Your task to perform on an android device: turn off location Image 0: 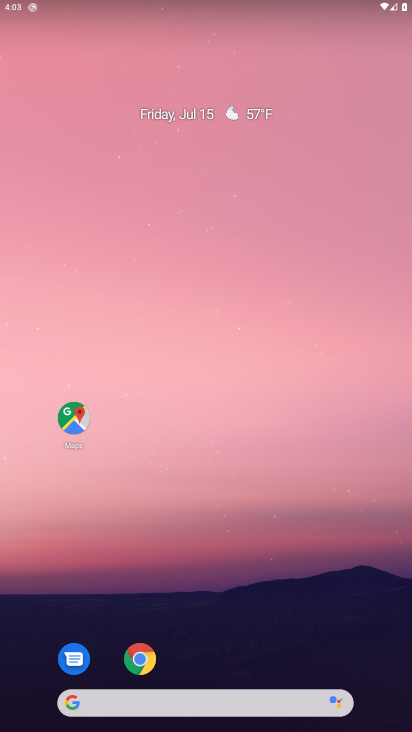
Step 0: drag from (60, 616) to (284, 3)
Your task to perform on an android device: turn off location Image 1: 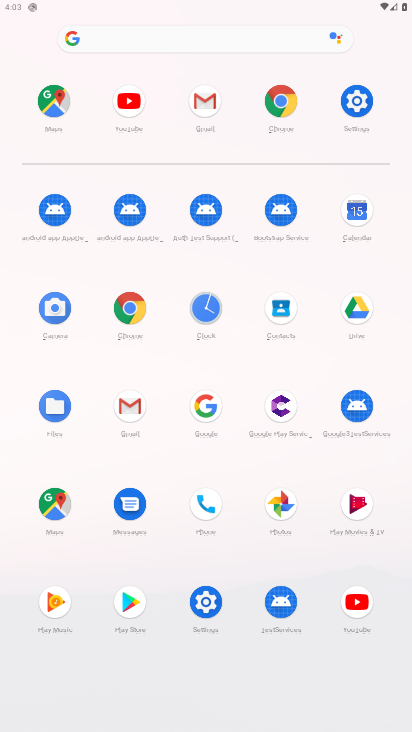
Step 1: click (192, 603)
Your task to perform on an android device: turn off location Image 2: 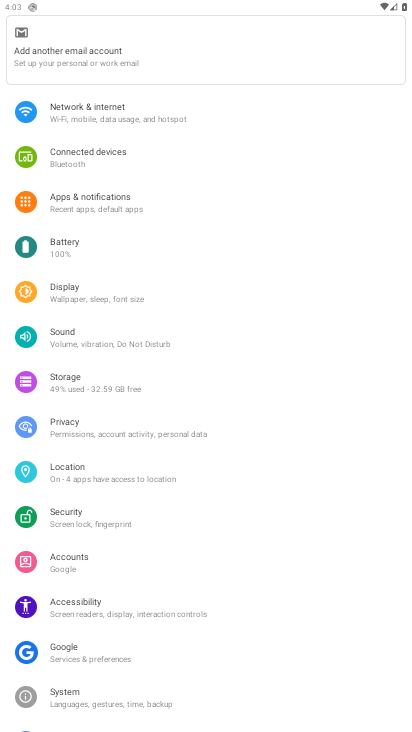
Step 2: click (84, 474)
Your task to perform on an android device: turn off location Image 3: 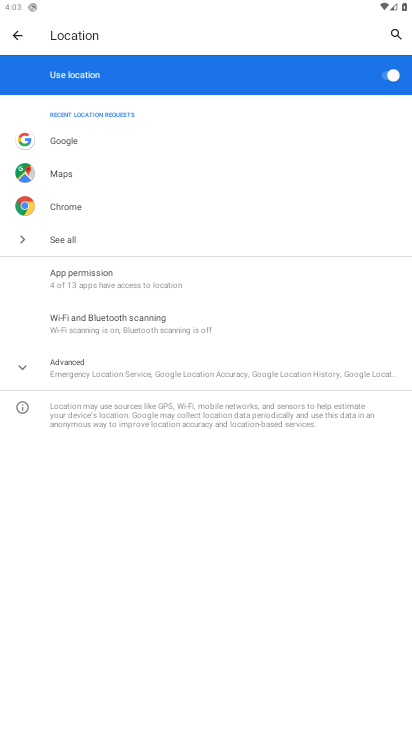
Step 3: click (83, 370)
Your task to perform on an android device: turn off location Image 4: 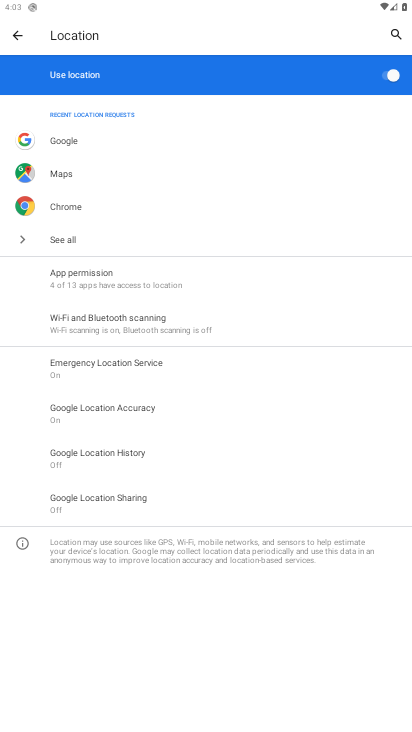
Step 4: task complete